Your task to perform on an android device: Open privacy settings Image 0: 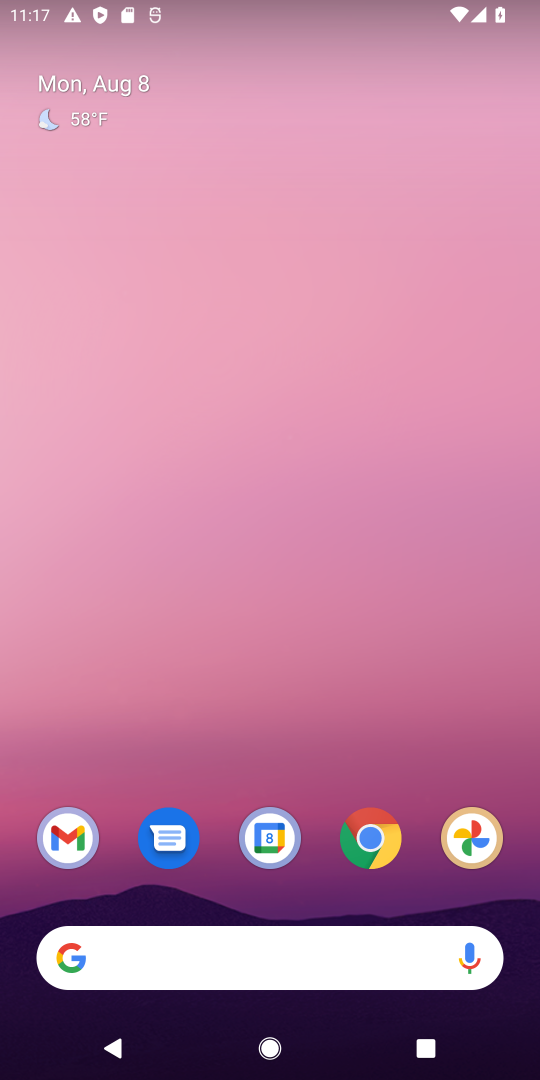
Step 0: press home button
Your task to perform on an android device: Open privacy settings Image 1: 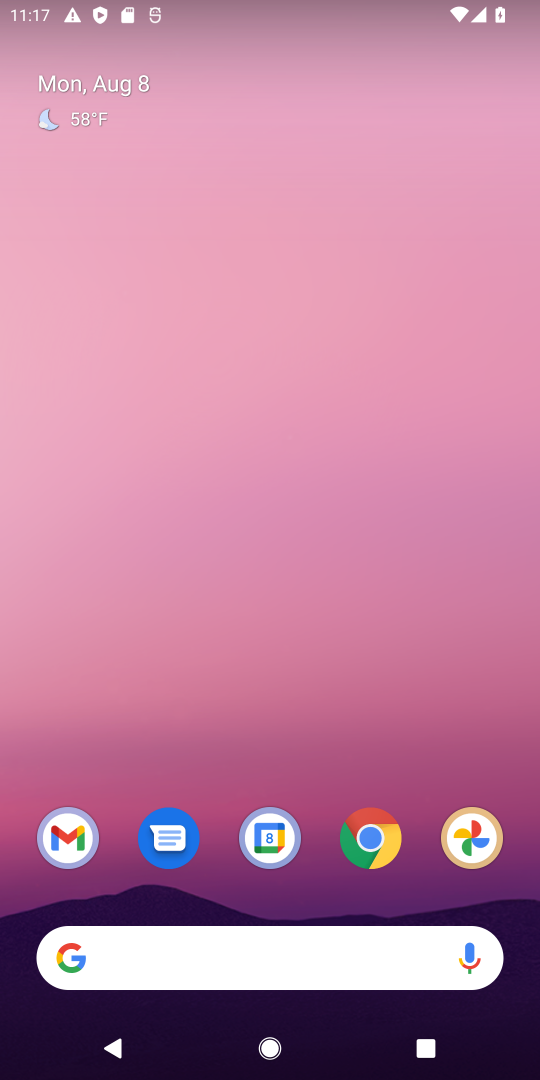
Step 1: drag from (320, 906) to (363, 351)
Your task to perform on an android device: Open privacy settings Image 2: 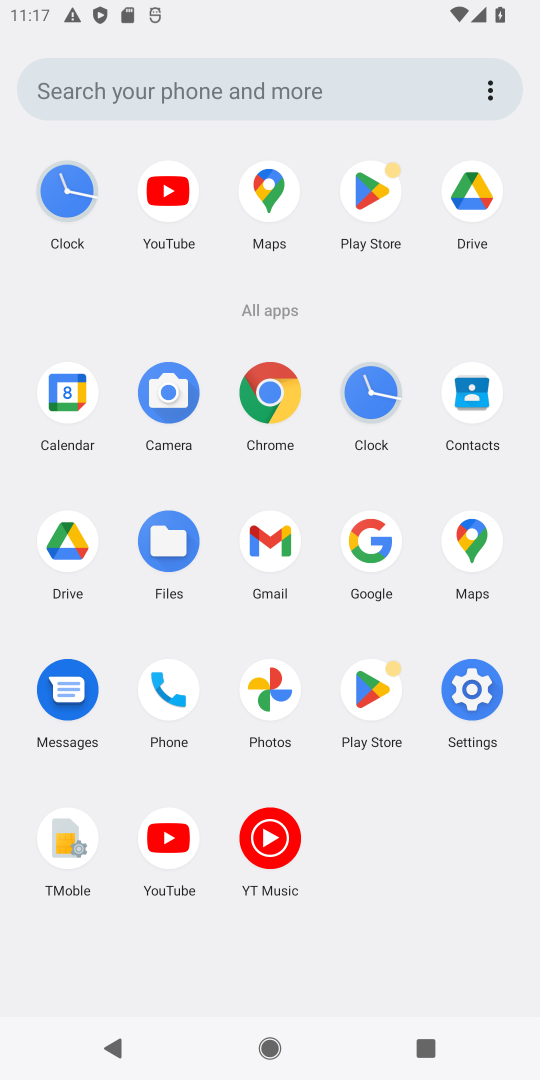
Step 2: click (482, 698)
Your task to perform on an android device: Open privacy settings Image 3: 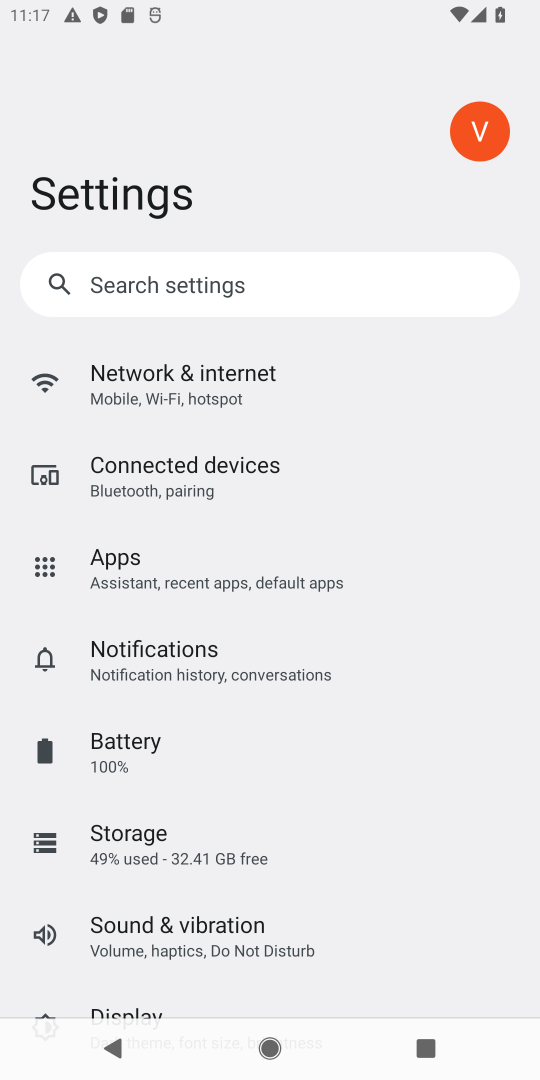
Step 3: drag from (426, 833) to (402, 307)
Your task to perform on an android device: Open privacy settings Image 4: 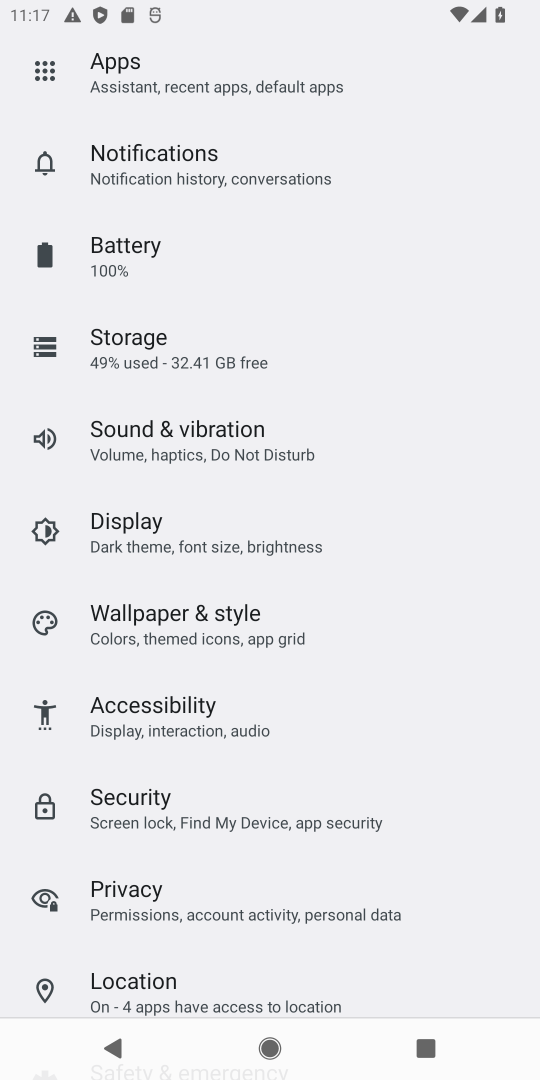
Step 4: click (121, 902)
Your task to perform on an android device: Open privacy settings Image 5: 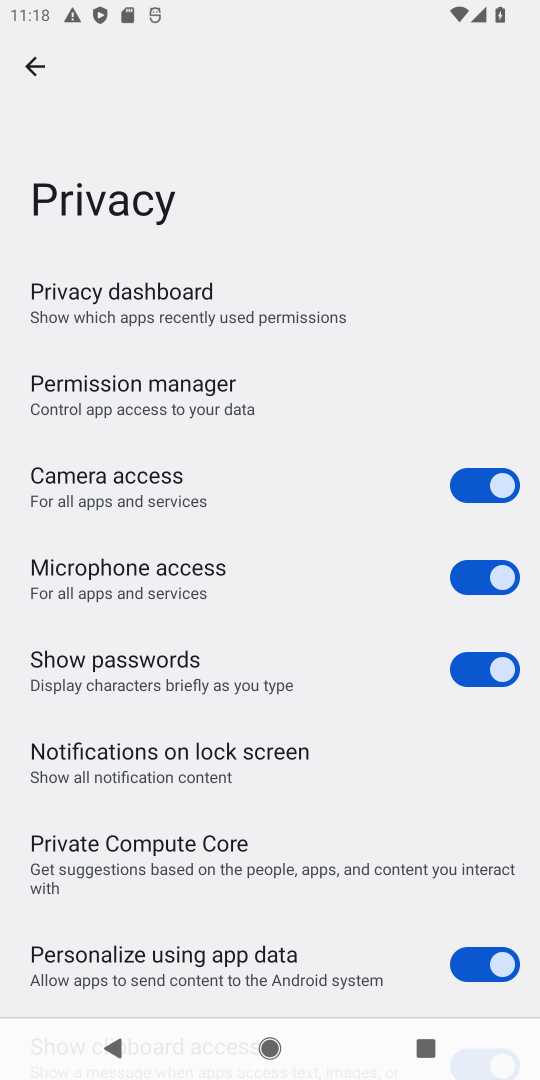
Step 5: task complete